Your task to perform on an android device: Do I have any events today? Image 0: 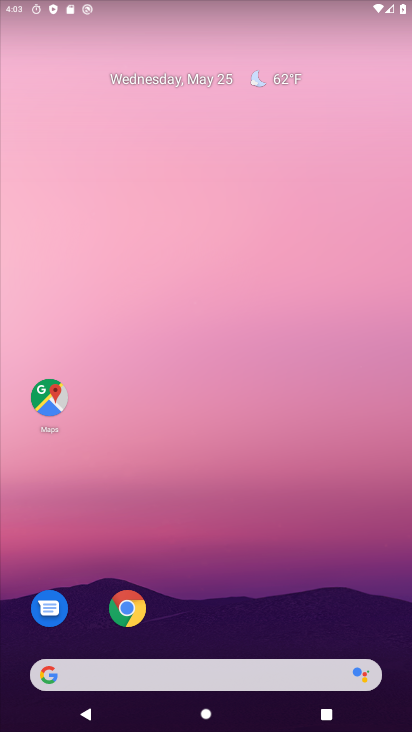
Step 0: drag from (297, 587) to (291, 191)
Your task to perform on an android device: Do I have any events today? Image 1: 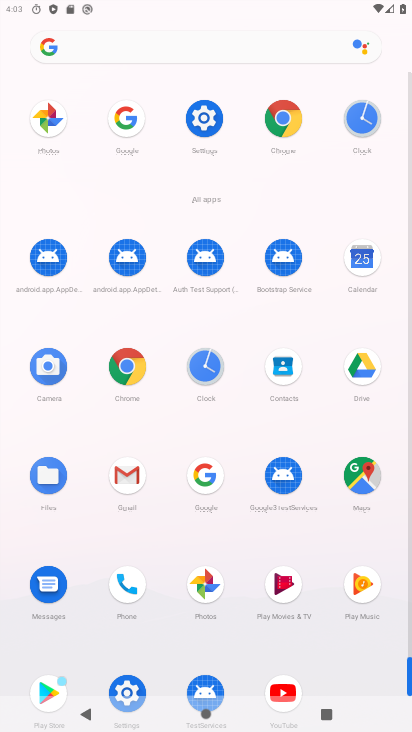
Step 1: click (363, 262)
Your task to perform on an android device: Do I have any events today? Image 2: 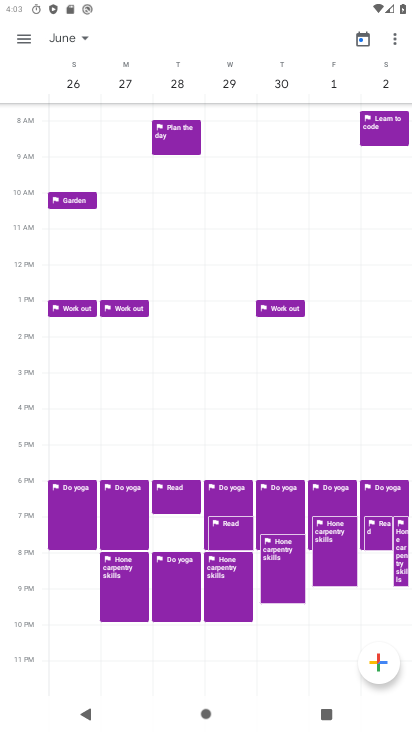
Step 2: click (365, 39)
Your task to perform on an android device: Do I have any events today? Image 3: 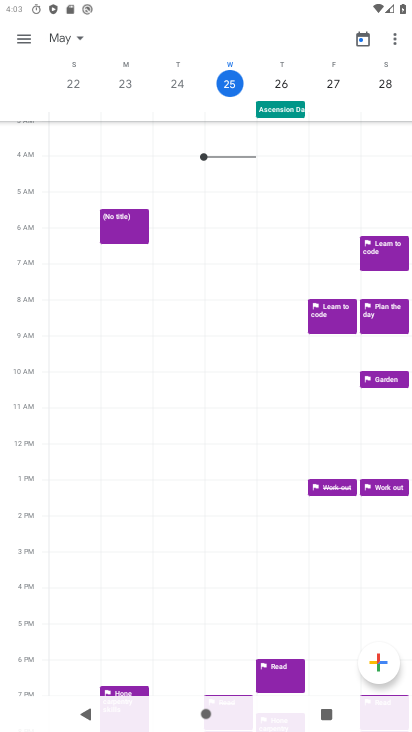
Step 3: click (80, 42)
Your task to perform on an android device: Do I have any events today? Image 4: 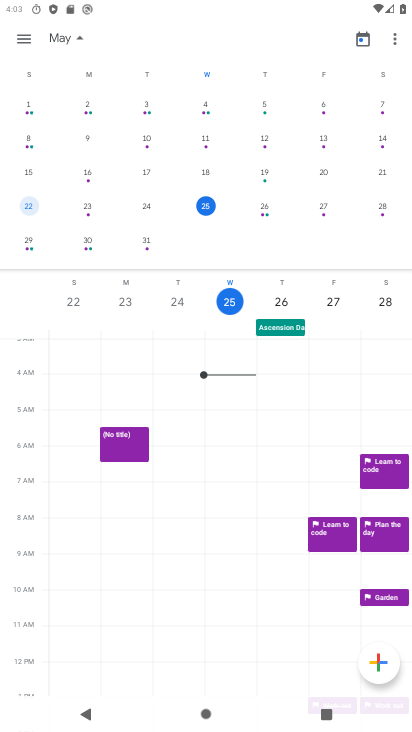
Step 4: click (202, 204)
Your task to perform on an android device: Do I have any events today? Image 5: 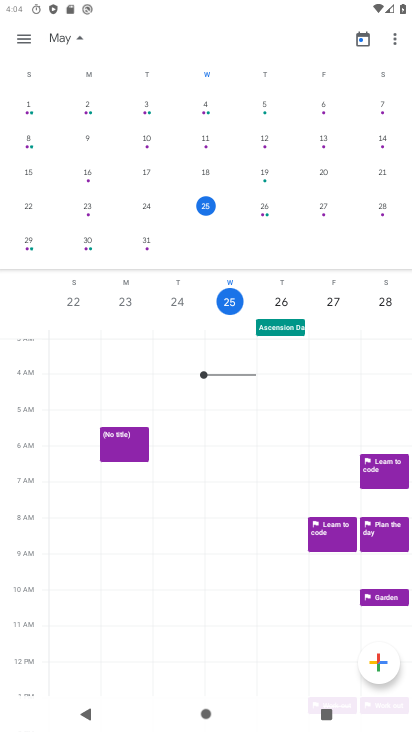
Step 5: click (19, 36)
Your task to perform on an android device: Do I have any events today? Image 6: 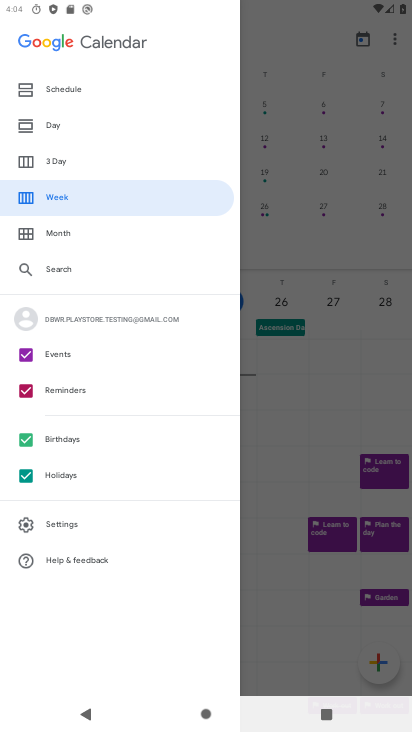
Step 6: click (74, 84)
Your task to perform on an android device: Do I have any events today? Image 7: 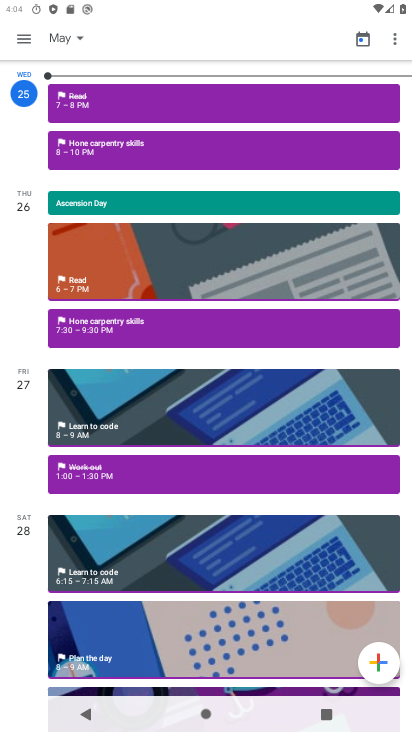
Step 7: click (124, 106)
Your task to perform on an android device: Do I have any events today? Image 8: 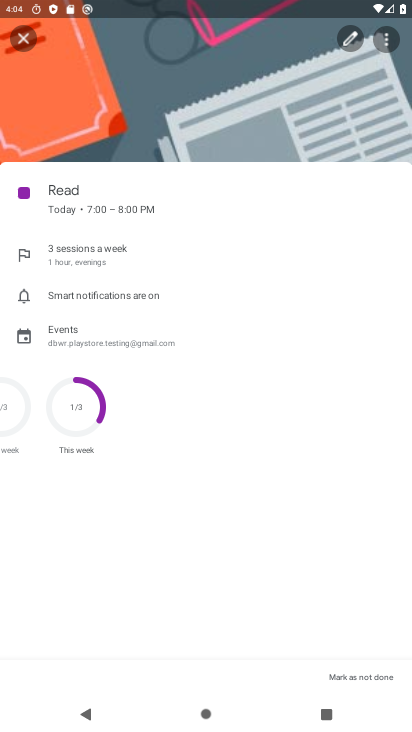
Step 8: task complete